Your task to perform on an android device: Find coffee shops on Maps Image 0: 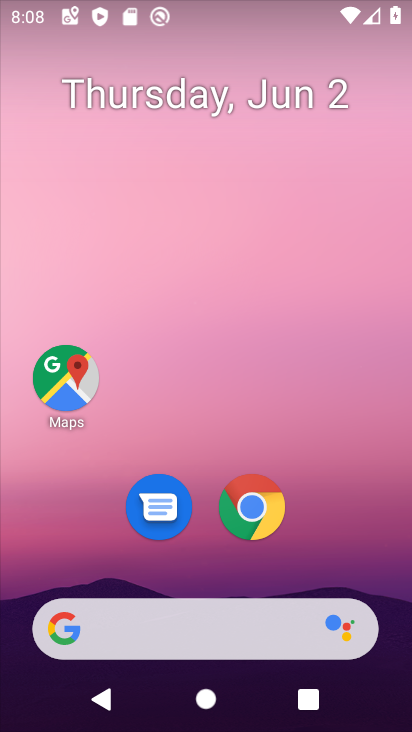
Step 0: click (57, 390)
Your task to perform on an android device: Find coffee shops on Maps Image 1: 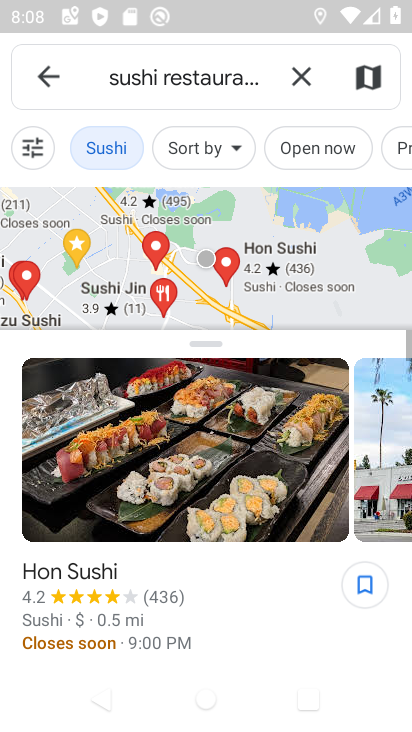
Step 1: click (309, 81)
Your task to perform on an android device: Find coffee shops on Maps Image 2: 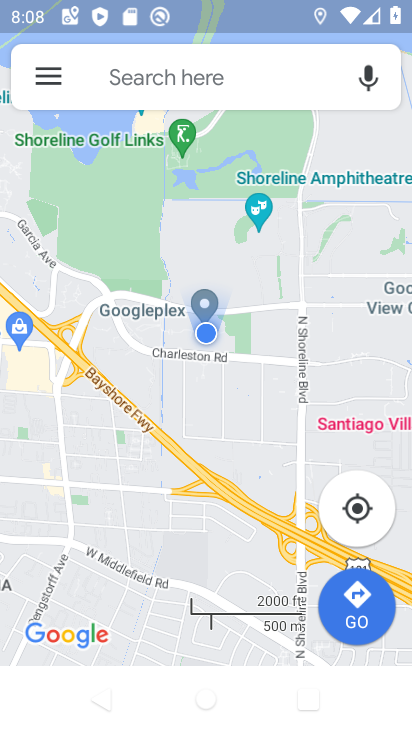
Step 2: click (268, 87)
Your task to perform on an android device: Find coffee shops on Maps Image 3: 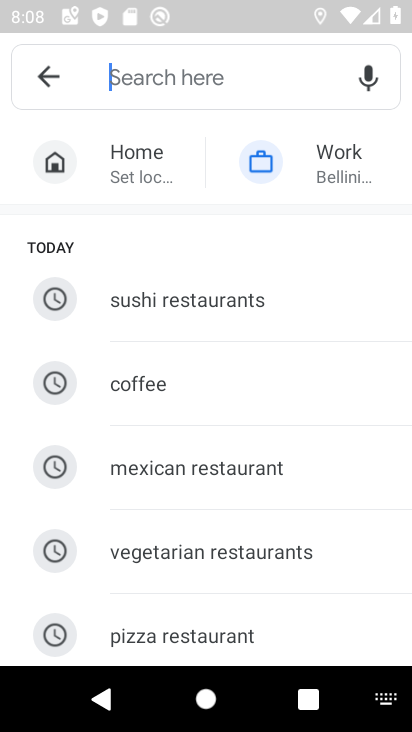
Step 3: type "Coffee "
Your task to perform on an android device: Find coffee shops on Maps Image 4: 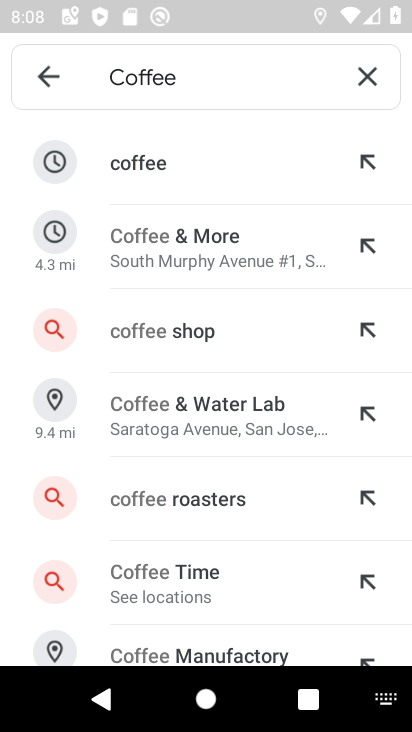
Step 4: type "shops"
Your task to perform on an android device: Find coffee shops on Maps Image 5: 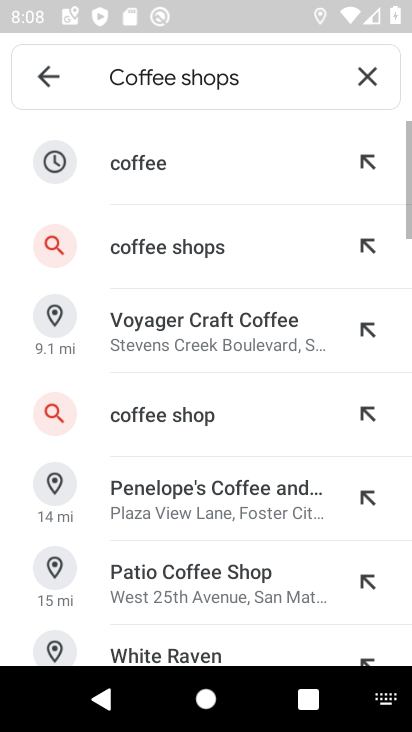
Step 5: click (201, 253)
Your task to perform on an android device: Find coffee shops on Maps Image 6: 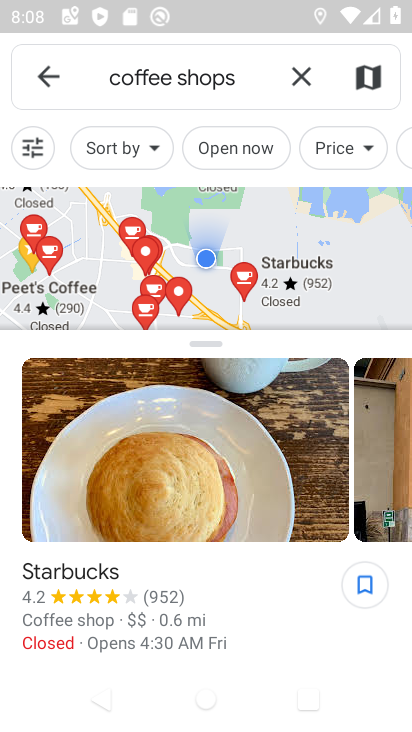
Step 6: task complete